Your task to perform on an android device: Open Google Image 0: 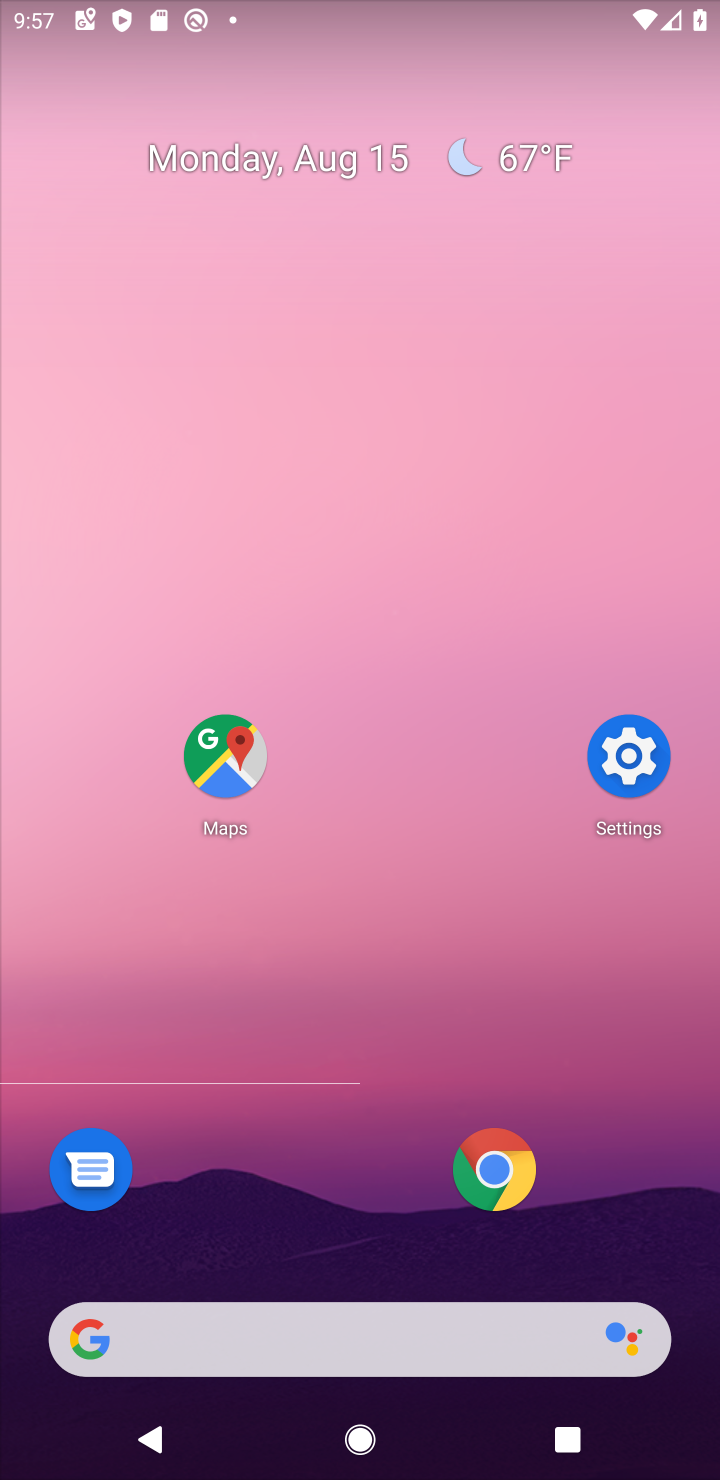
Step 0: drag from (288, 1326) to (661, 197)
Your task to perform on an android device: Open Google Image 1: 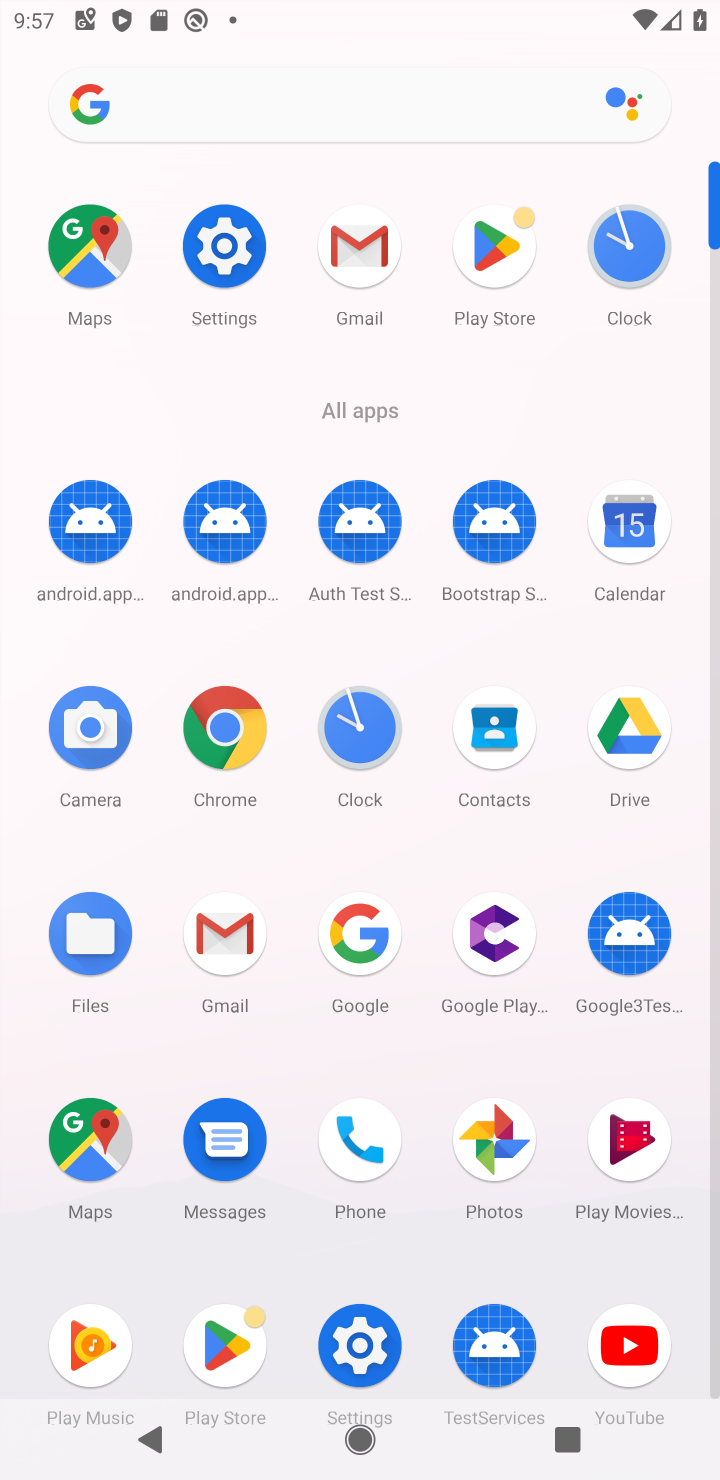
Step 1: click (368, 950)
Your task to perform on an android device: Open Google Image 2: 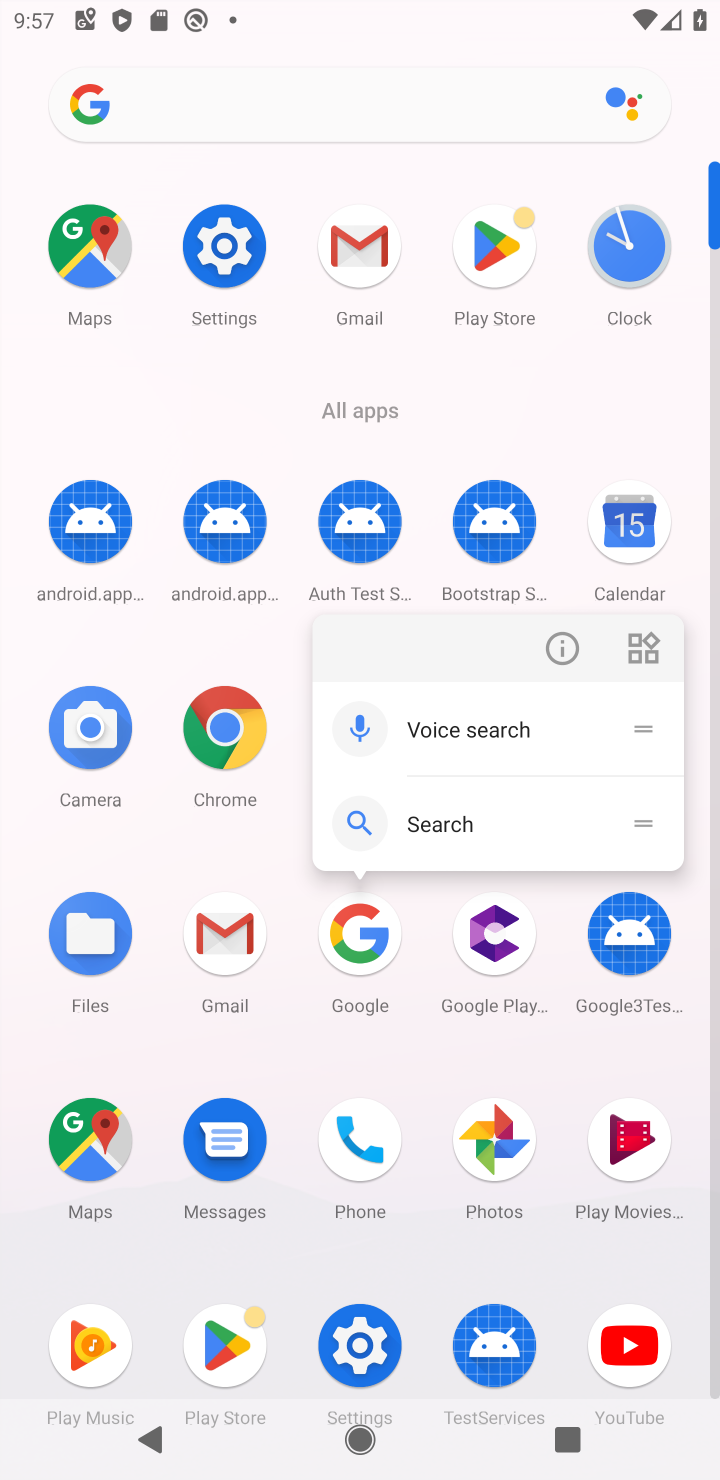
Step 2: click (366, 927)
Your task to perform on an android device: Open Google Image 3: 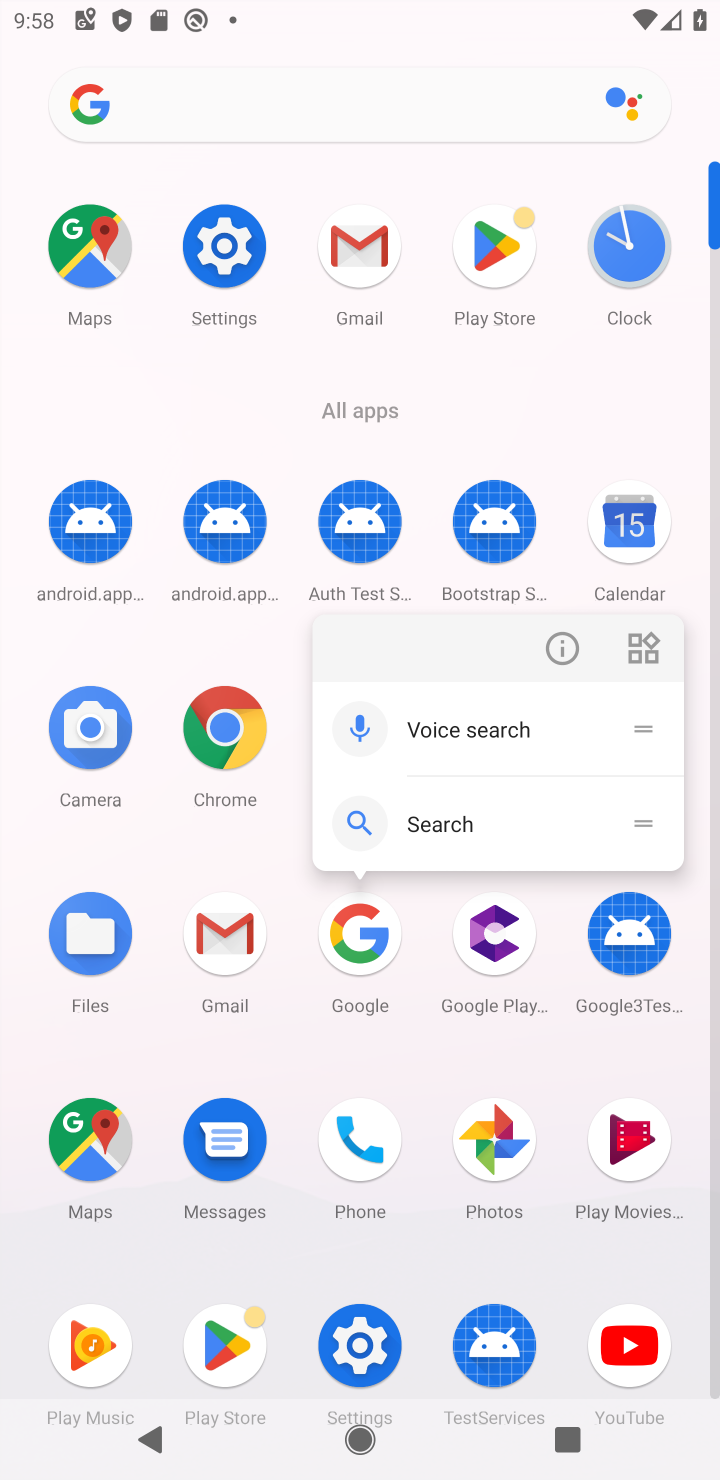
Step 3: click (361, 943)
Your task to perform on an android device: Open Google Image 4: 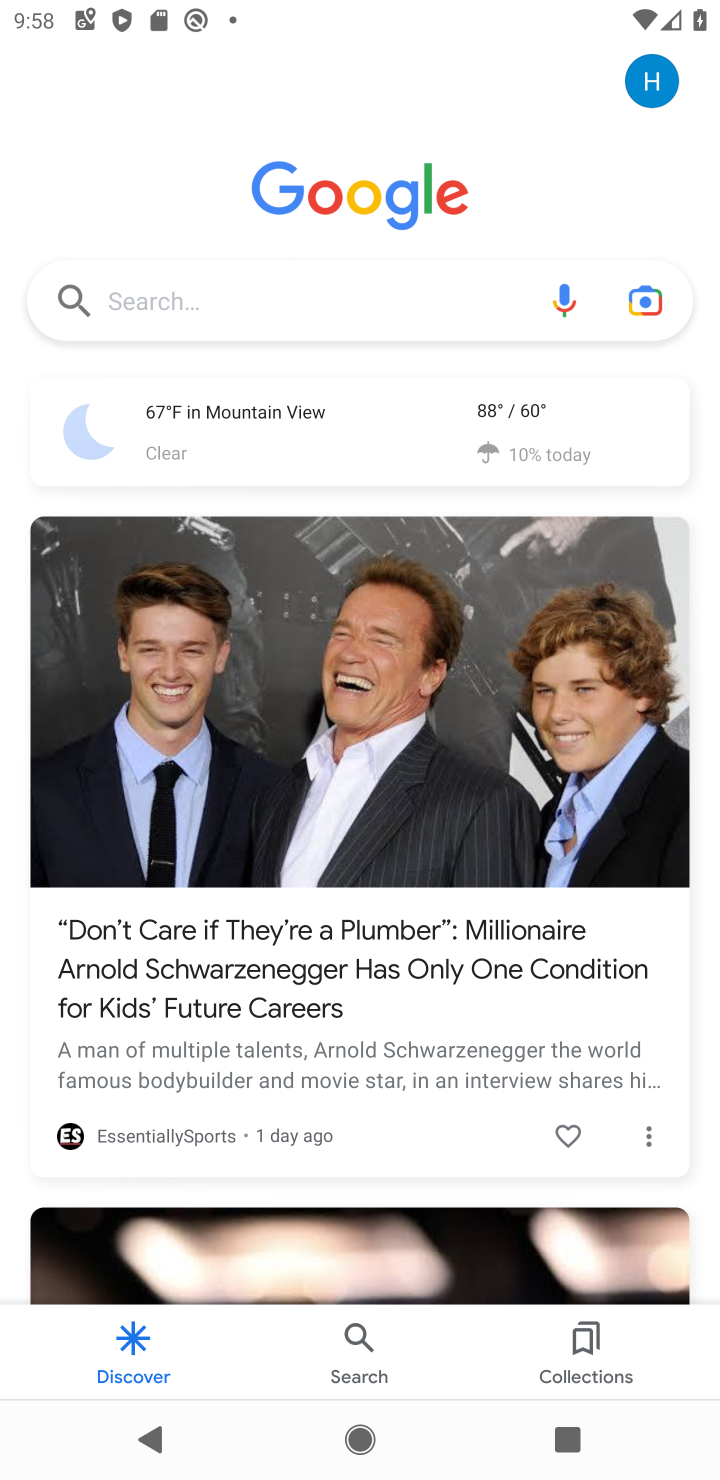
Step 4: task complete